Your task to perform on an android device: Clear all items from cart on amazon.com. Add lenovo thinkpad to the cart on amazon.com Image 0: 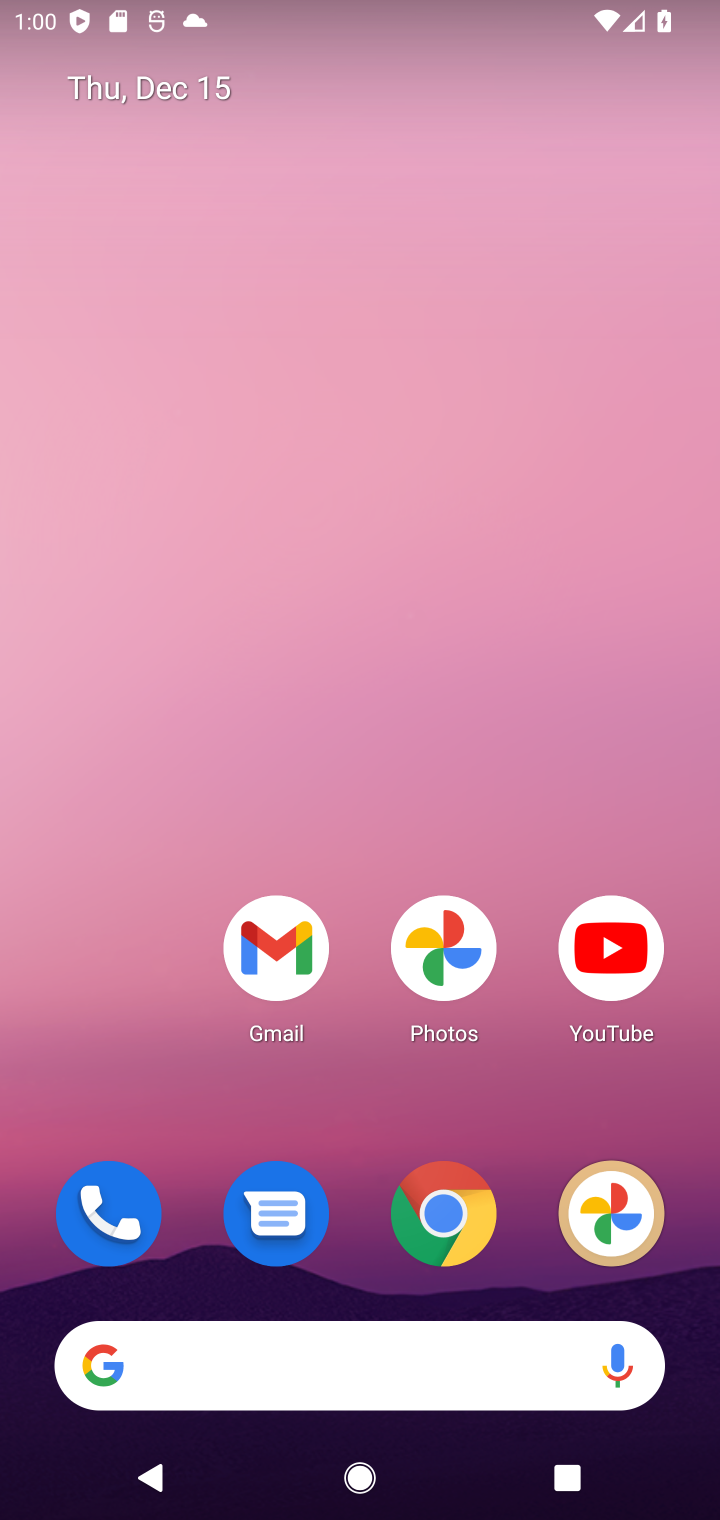
Step 0: click (345, 1353)
Your task to perform on an android device: Clear all items from cart on amazon.com. Add lenovo thinkpad to the cart on amazon.com Image 1: 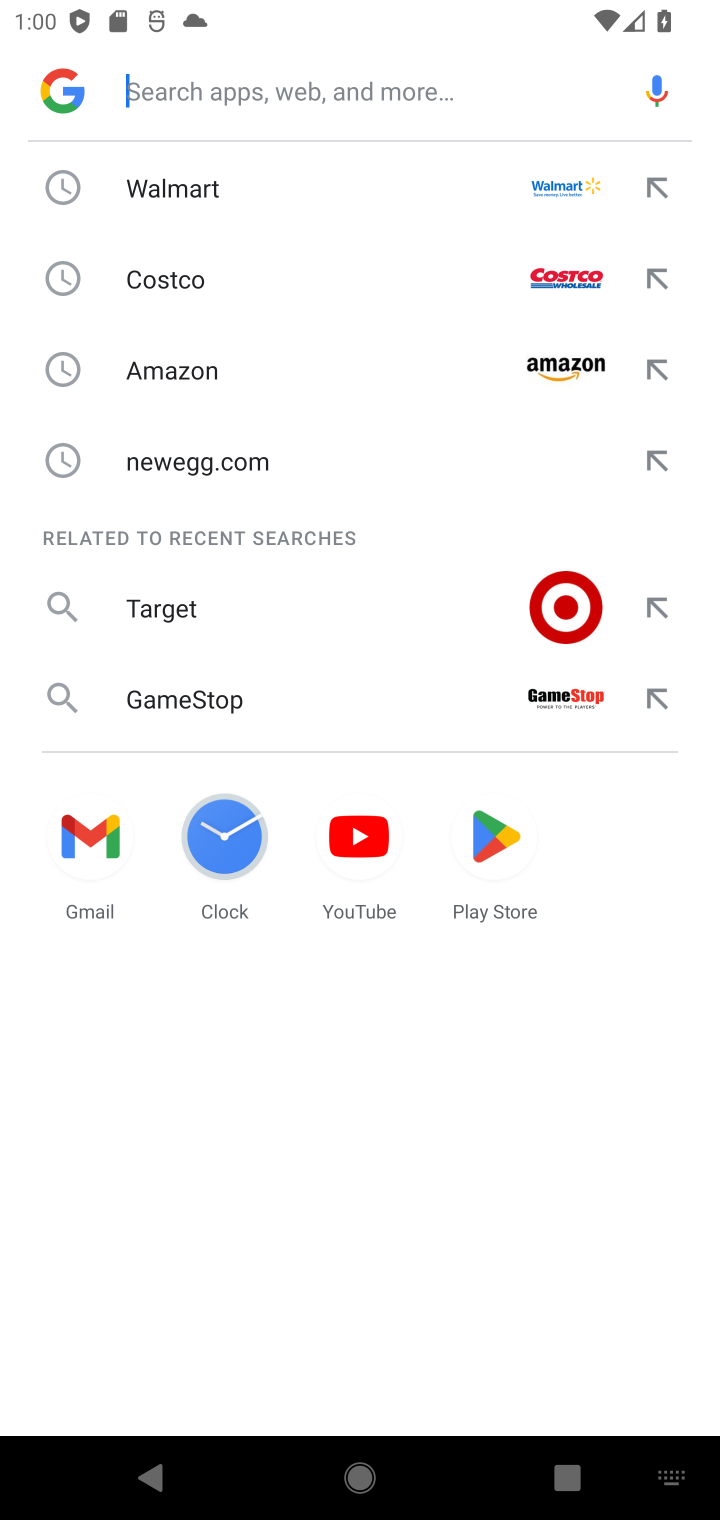
Step 1: click (186, 356)
Your task to perform on an android device: Clear all items from cart on amazon.com. Add lenovo thinkpad to the cart on amazon.com Image 2: 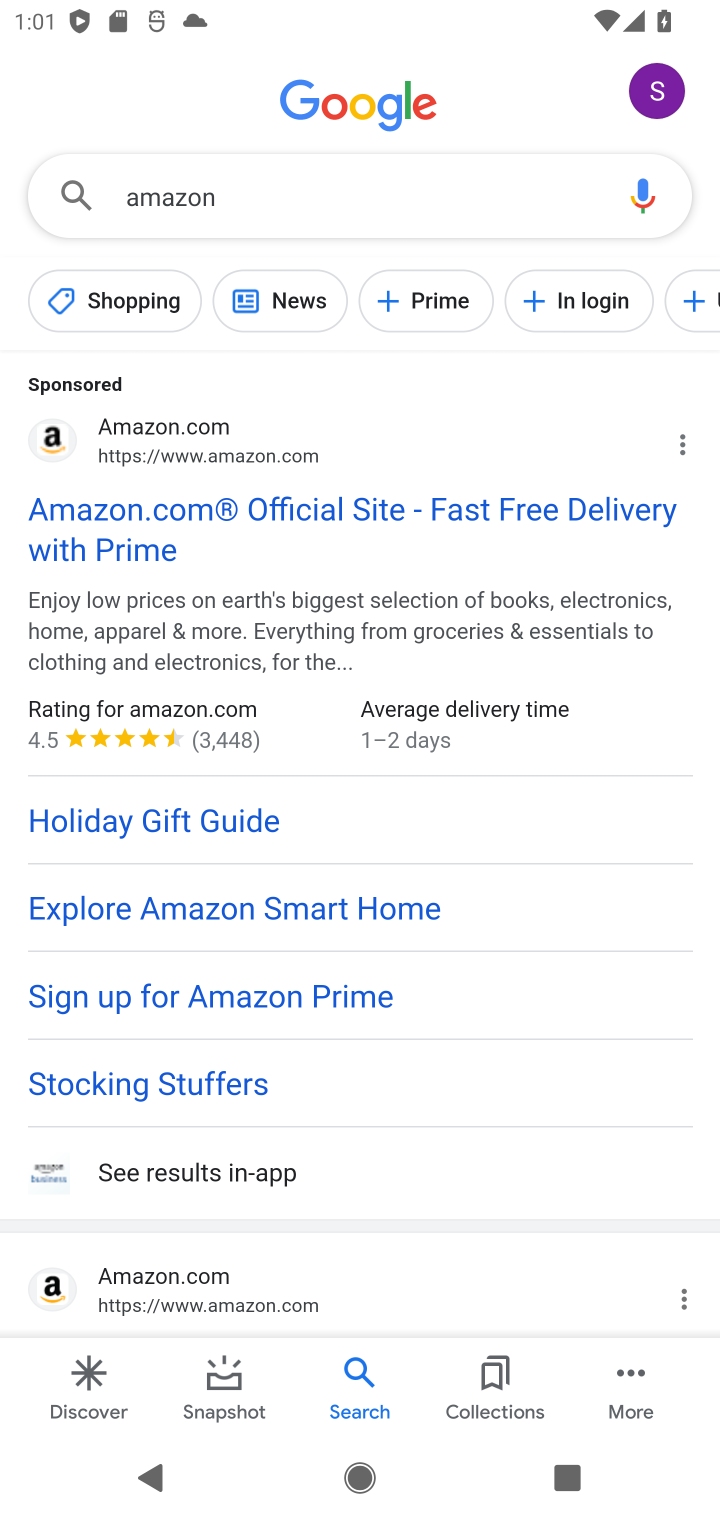
Step 2: click (202, 489)
Your task to perform on an android device: Clear all items from cart on amazon.com. Add lenovo thinkpad to the cart on amazon.com Image 3: 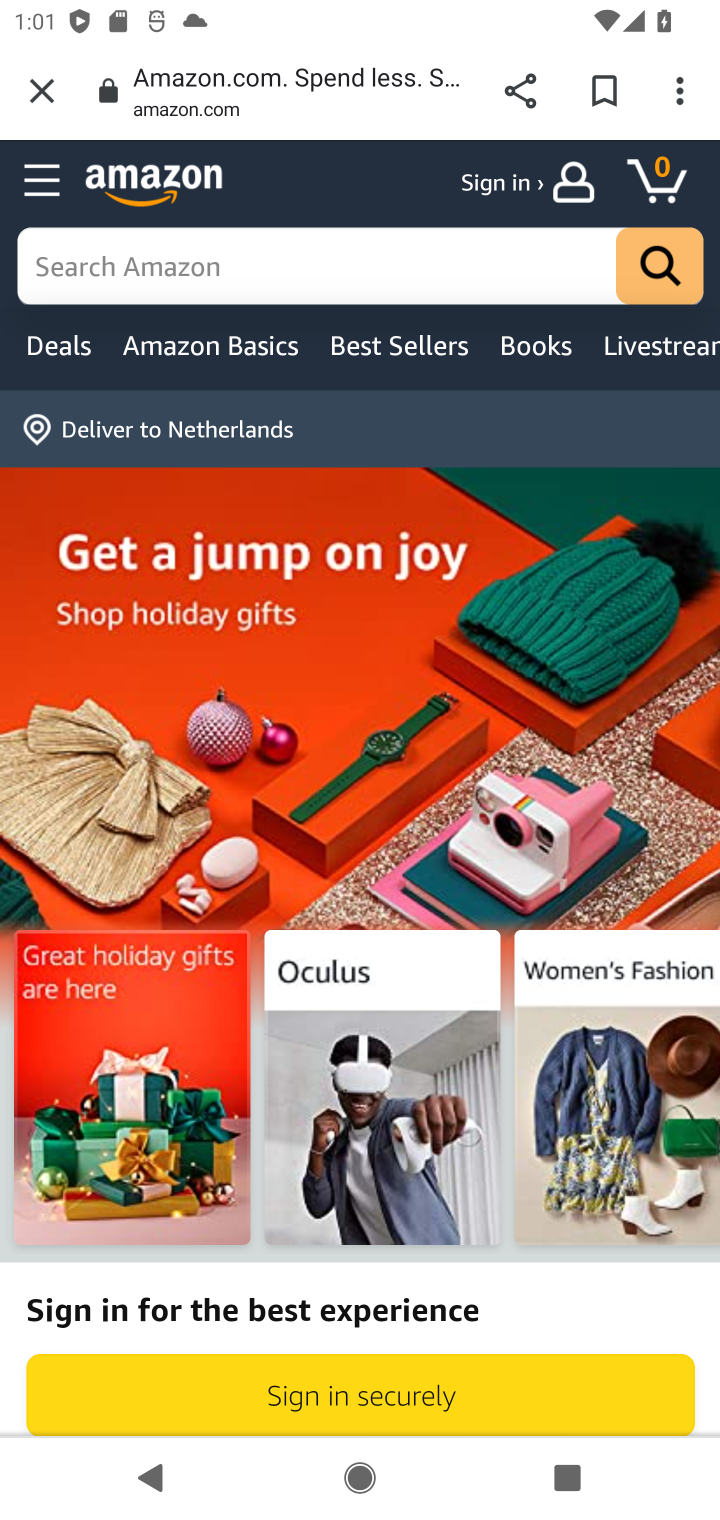
Step 3: task complete